Your task to perform on an android device: turn on bluetooth scan Image 0: 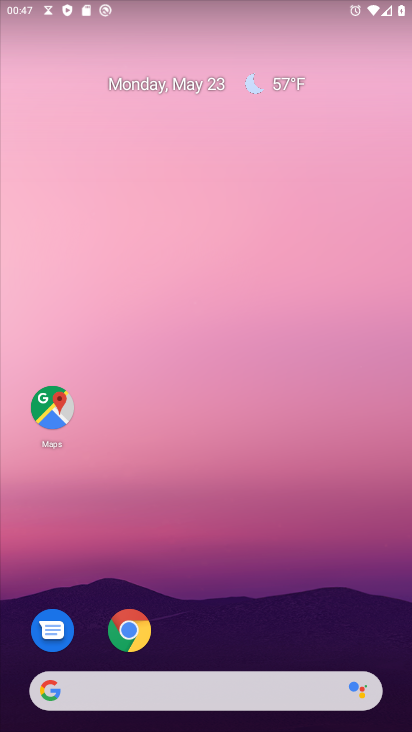
Step 0: drag from (291, 533) to (181, 70)
Your task to perform on an android device: turn on bluetooth scan Image 1: 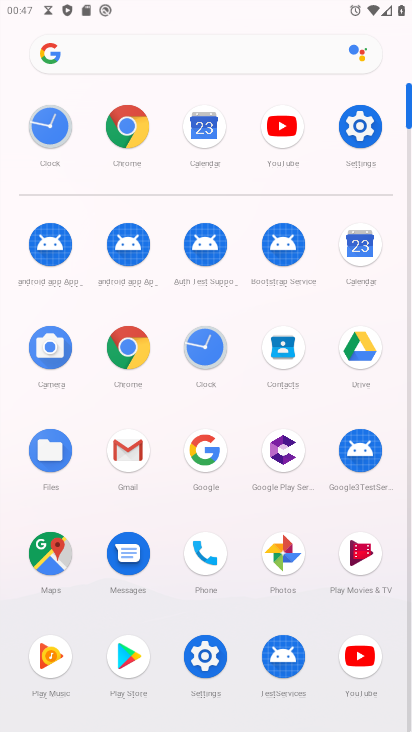
Step 1: click (362, 122)
Your task to perform on an android device: turn on bluetooth scan Image 2: 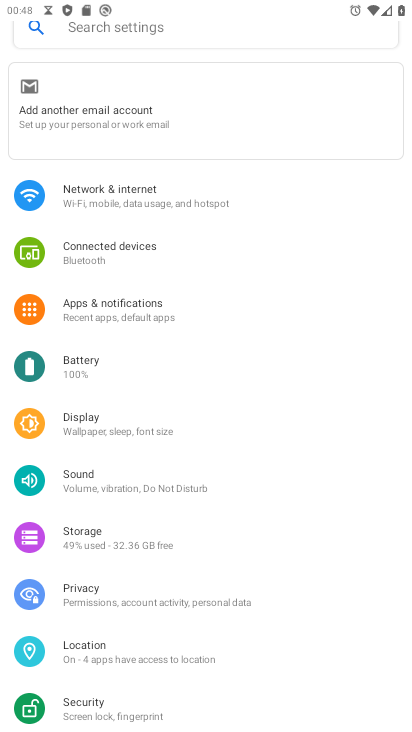
Step 2: click (186, 643)
Your task to perform on an android device: turn on bluetooth scan Image 3: 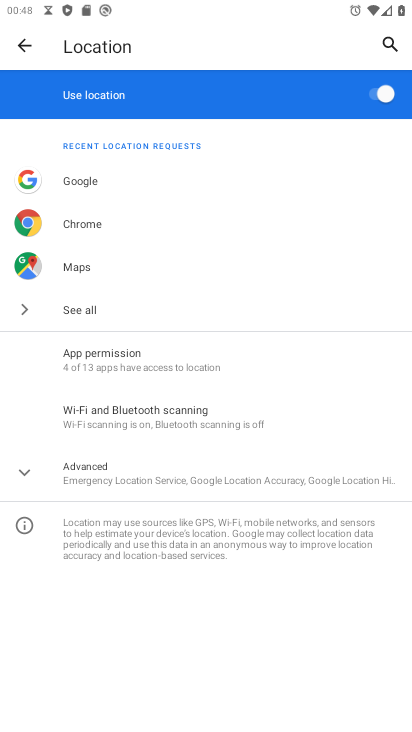
Step 3: click (149, 418)
Your task to perform on an android device: turn on bluetooth scan Image 4: 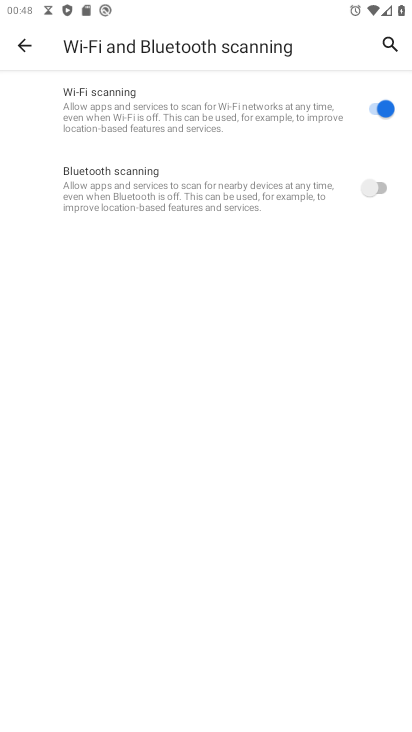
Step 4: click (370, 182)
Your task to perform on an android device: turn on bluetooth scan Image 5: 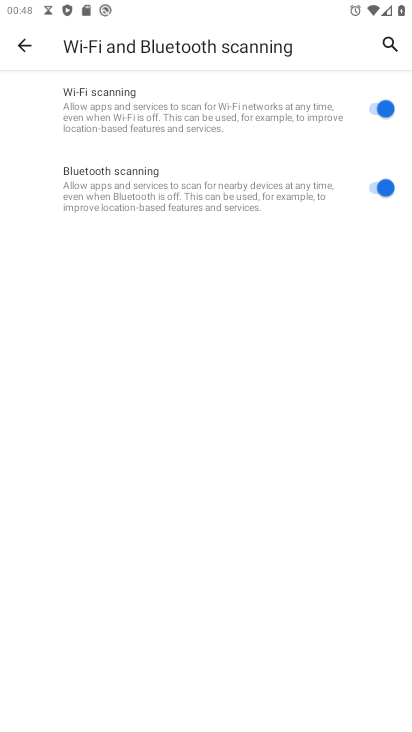
Step 5: task complete